Your task to perform on an android device: Clear the cart on amazon.com. Add "energizer triple a" to the cart on amazon.com Image 0: 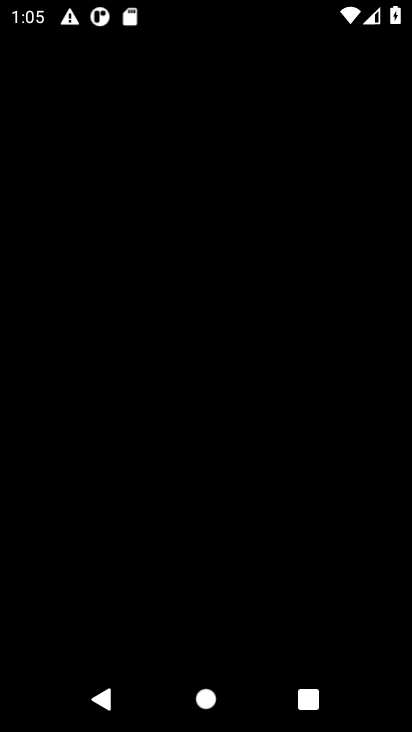
Step 0: press home button
Your task to perform on an android device: Clear the cart on amazon.com. Add "energizer triple a" to the cart on amazon.com Image 1: 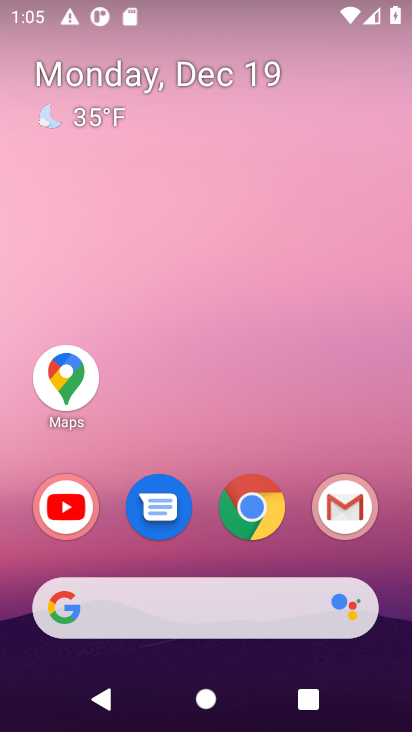
Step 1: click (253, 510)
Your task to perform on an android device: Clear the cart on amazon.com. Add "energizer triple a" to the cart on amazon.com Image 2: 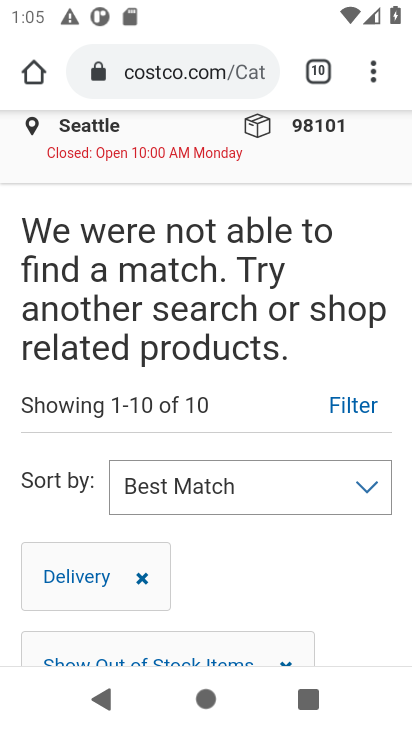
Step 2: click (192, 71)
Your task to perform on an android device: Clear the cart on amazon.com. Add "energizer triple a" to the cart on amazon.com Image 3: 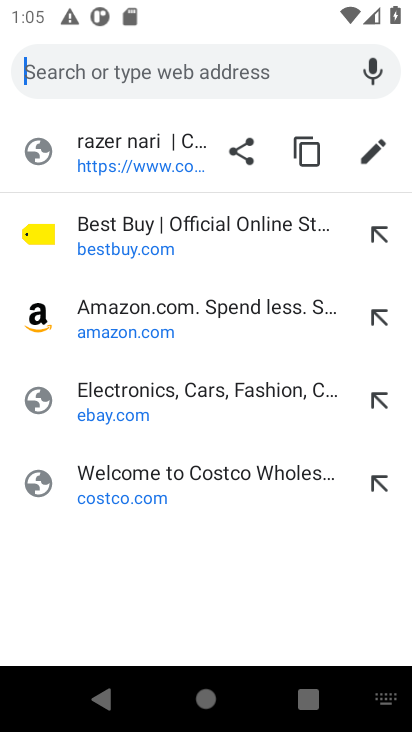
Step 3: click (126, 313)
Your task to perform on an android device: Clear the cart on amazon.com. Add "energizer triple a" to the cart on amazon.com Image 4: 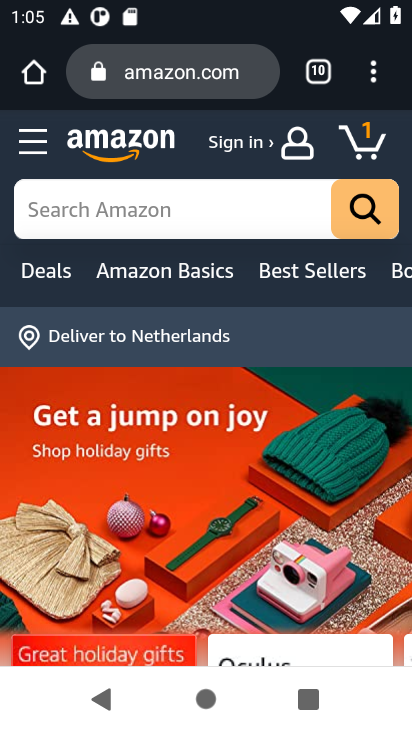
Step 4: click (371, 133)
Your task to perform on an android device: Clear the cart on amazon.com. Add "energizer triple a" to the cart on amazon.com Image 5: 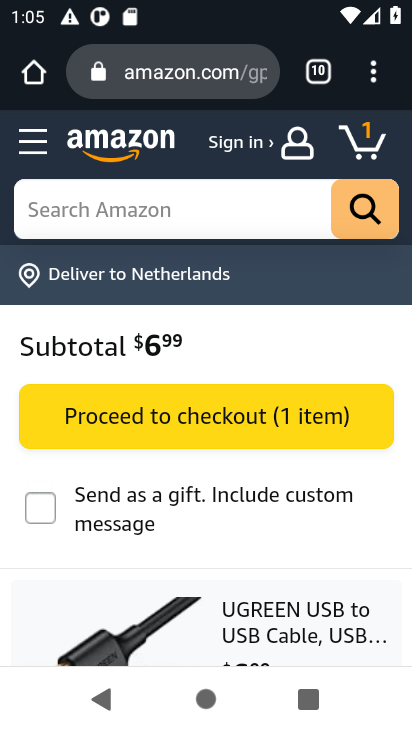
Step 5: drag from (274, 524) to (295, 368)
Your task to perform on an android device: Clear the cart on amazon.com. Add "energizer triple a" to the cart on amazon.com Image 6: 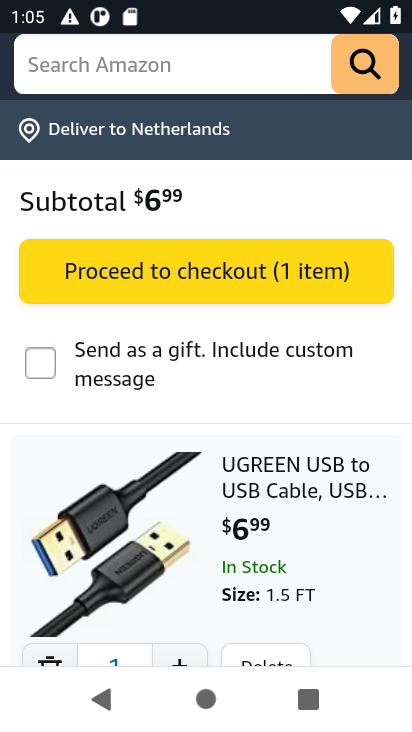
Step 6: drag from (298, 539) to (319, 274)
Your task to perform on an android device: Clear the cart on amazon.com. Add "energizer triple a" to the cart on amazon.com Image 7: 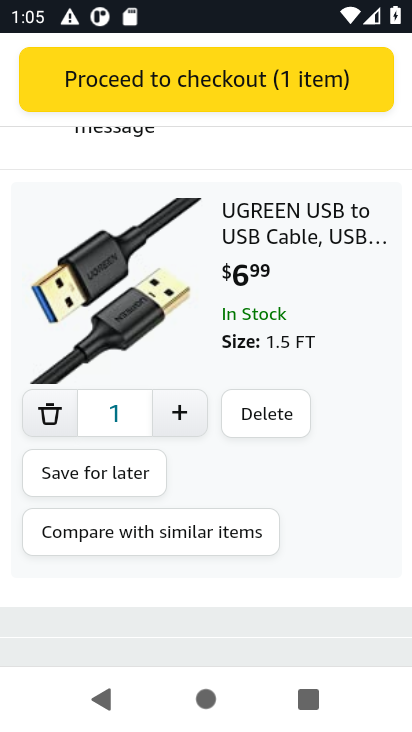
Step 7: click (275, 402)
Your task to perform on an android device: Clear the cart on amazon.com. Add "energizer triple a" to the cart on amazon.com Image 8: 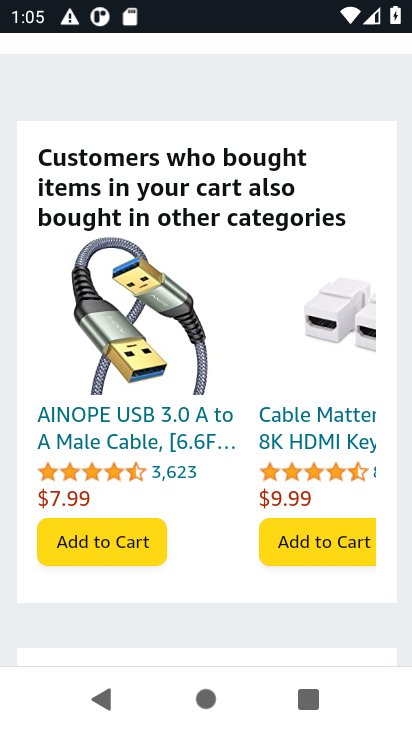
Step 8: drag from (219, 305) to (196, 552)
Your task to perform on an android device: Clear the cart on amazon.com. Add "energizer triple a" to the cart on amazon.com Image 9: 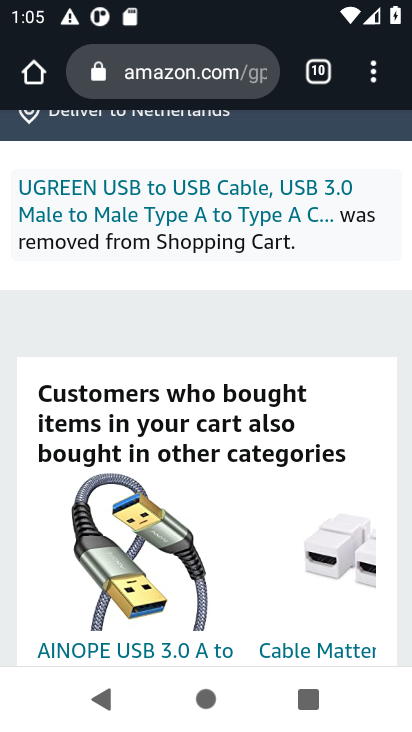
Step 9: drag from (180, 170) to (175, 370)
Your task to perform on an android device: Clear the cart on amazon.com. Add "energizer triple a" to the cart on amazon.com Image 10: 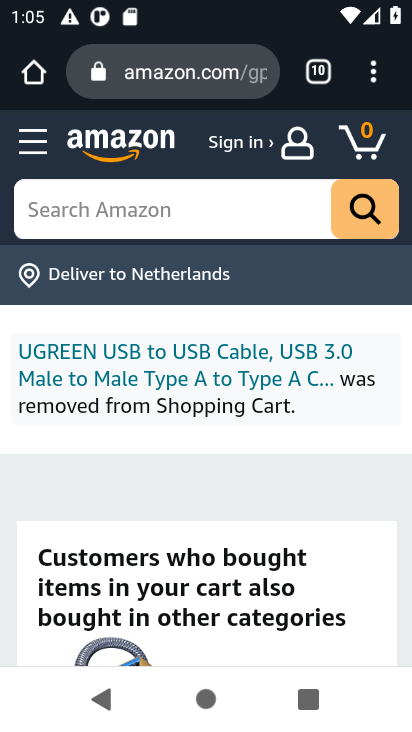
Step 10: click (116, 209)
Your task to perform on an android device: Clear the cart on amazon.com. Add "energizer triple a" to the cart on amazon.com Image 11: 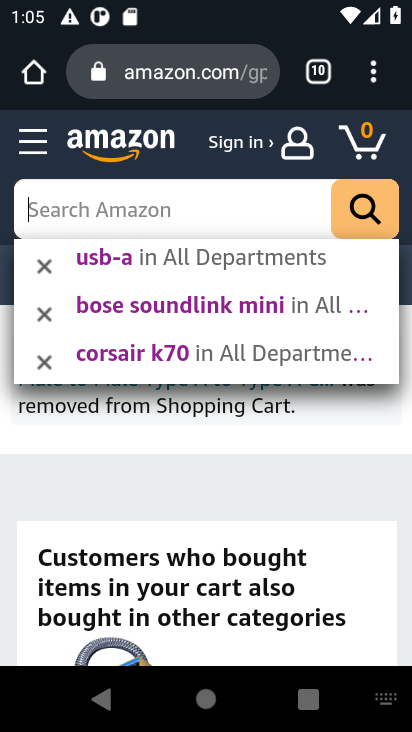
Step 11: type "energizer triple a"
Your task to perform on an android device: Clear the cart on amazon.com. Add "energizer triple a" to the cart on amazon.com Image 12: 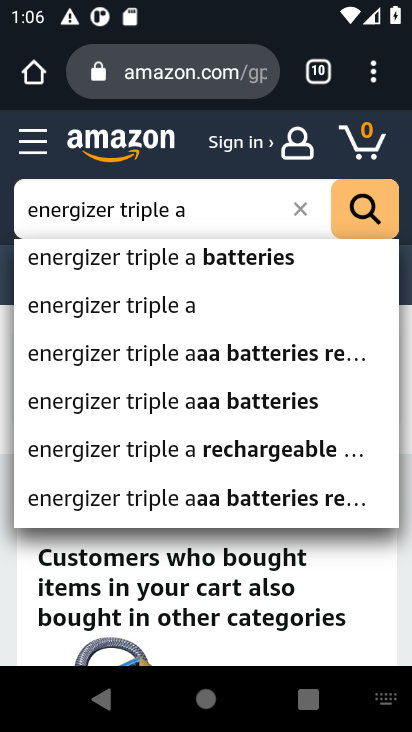
Step 12: click (142, 262)
Your task to perform on an android device: Clear the cart on amazon.com. Add "energizer triple a" to the cart on amazon.com Image 13: 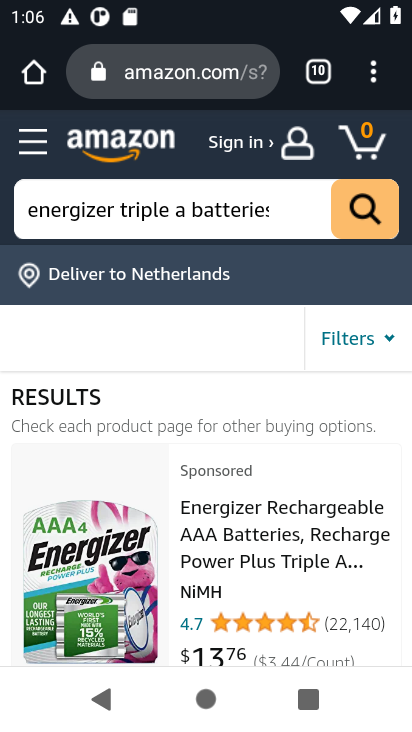
Step 13: drag from (168, 560) to (189, 301)
Your task to perform on an android device: Clear the cart on amazon.com. Add "energizer triple a" to the cart on amazon.com Image 14: 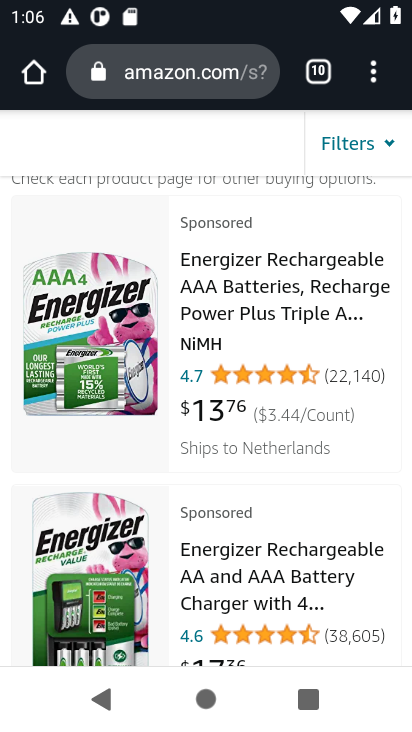
Step 14: click (245, 291)
Your task to perform on an android device: Clear the cart on amazon.com. Add "energizer triple a" to the cart on amazon.com Image 15: 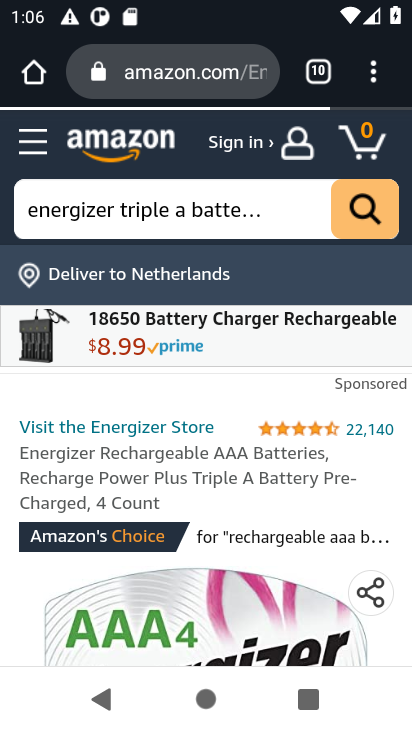
Step 15: drag from (205, 456) to (230, 65)
Your task to perform on an android device: Clear the cart on amazon.com. Add "energizer triple a" to the cart on amazon.com Image 16: 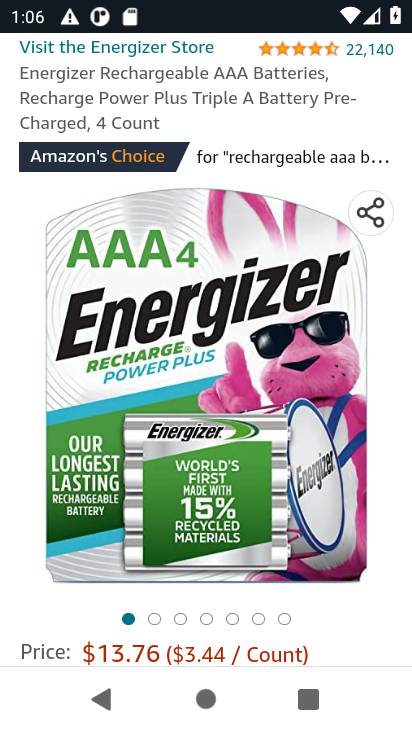
Step 16: drag from (184, 439) to (211, 139)
Your task to perform on an android device: Clear the cart on amazon.com. Add "energizer triple a" to the cart on amazon.com Image 17: 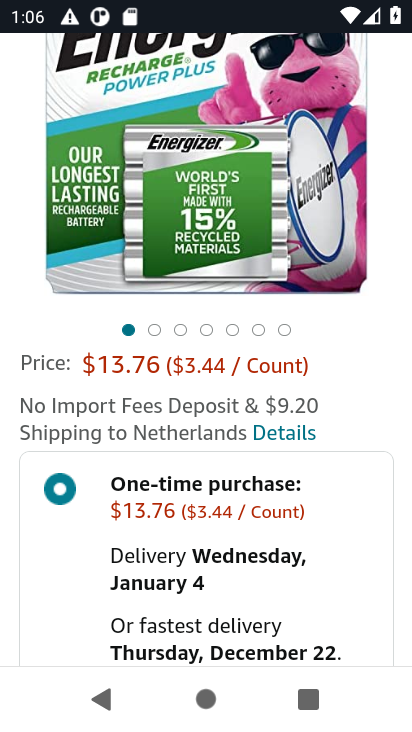
Step 17: drag from (188, 475) to (212, 152)
Your task to perform on an android device: Clear the cart on amazon.com. Add "energizer triple a" to the cart on amazon.com Image 18: 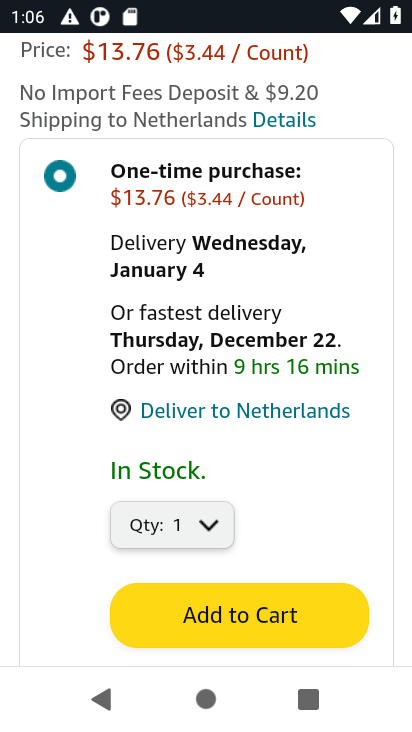
Step 18: click (211, 626)
Your task to perform on an android device: Clear the cart on amazon.com. Add "energizer triple a" to the cart on amazon.com Image 19: 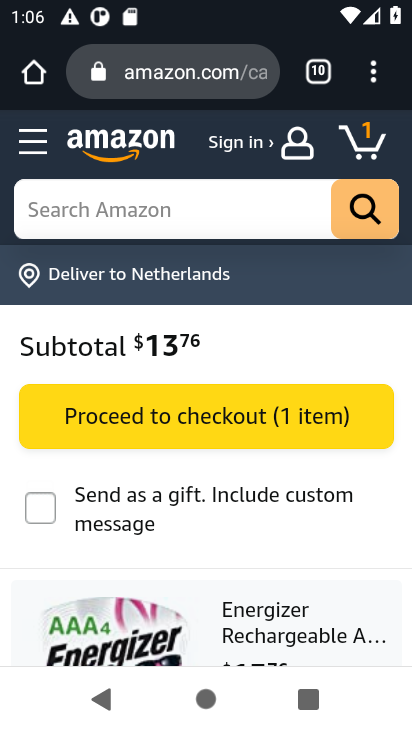
Step 19: task complete